Your task to perform on an android device: Open Google Image 0: 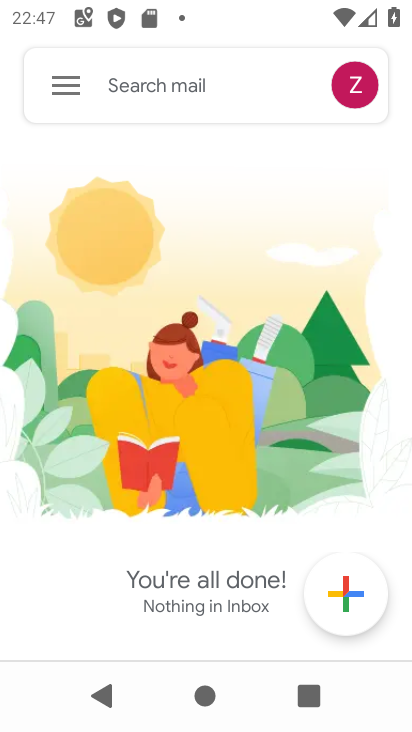
Step 0: press home button
Your task to perform on an android device: Open Google Image 1: 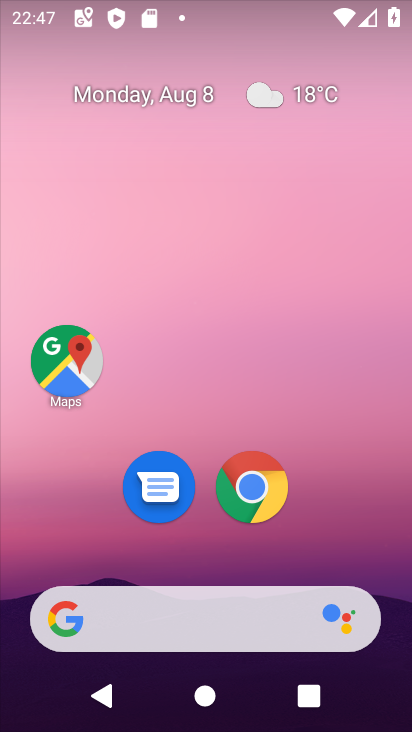
Step 1: drag from (209, 548) to (188, 84)
Your task to perform on an android device: Open Google Image 2: 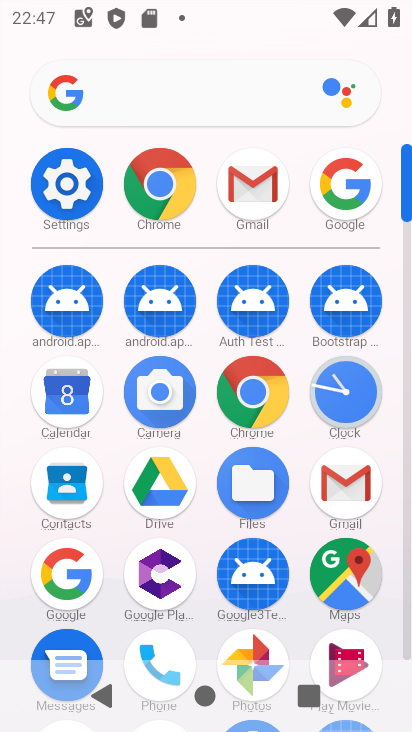
Step 2: click (347, 181)
Your task to perform on an android device: Open Google Image 3: 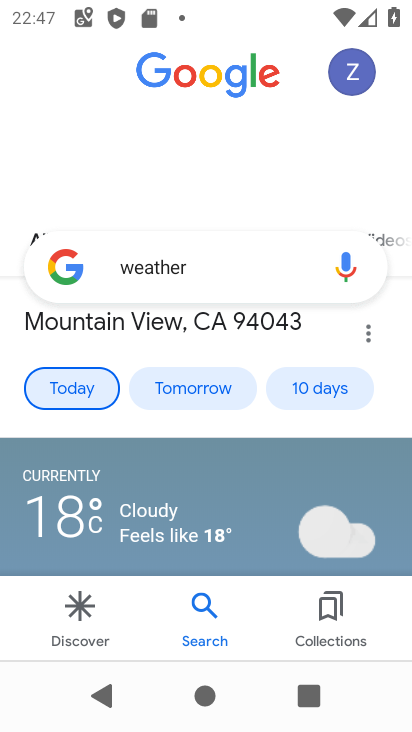
Step 3: task complete